Your task to perform on an android device: What's the weather going to be this weekend? Image 0: 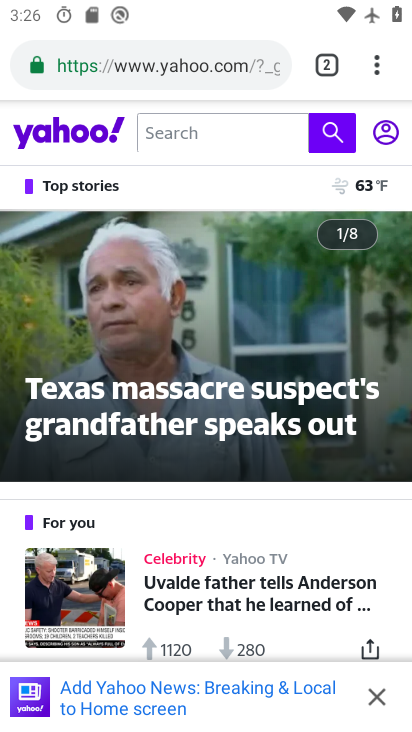
Step 0: press back button
Your task to perform on an android device: What's the weather going to be this weekend? Image 1: 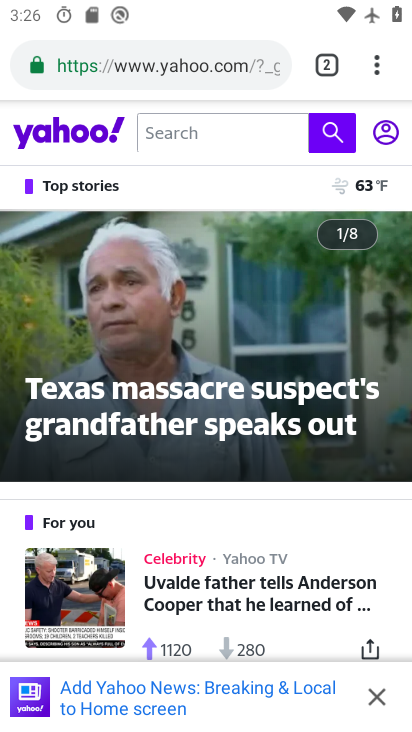
Step 1: press back button
Your task to perform on an android device: What's the weather going to be this weekend? Image 2: 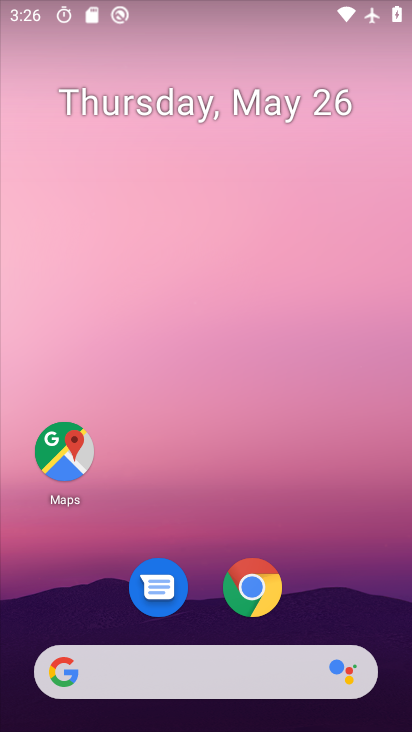
Step 2: drag from (365, 623) to (237, 155)
Your task to perform on an android device: What's the weather going to be this weekend? Image 3: 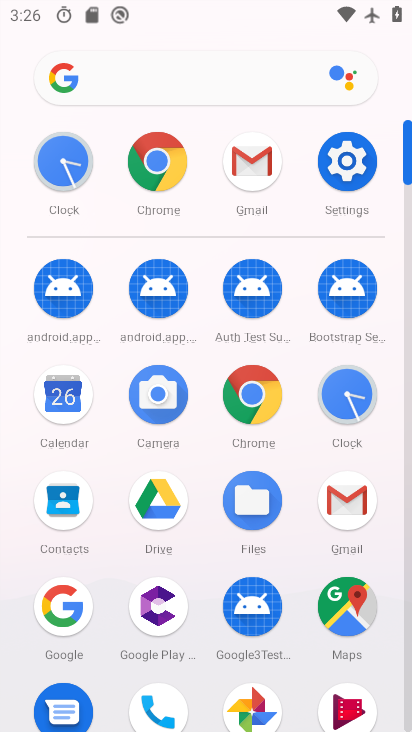
Step 3: press back button
Your task to perform on an android device: What's the weather going to be this weekend? Image 4: 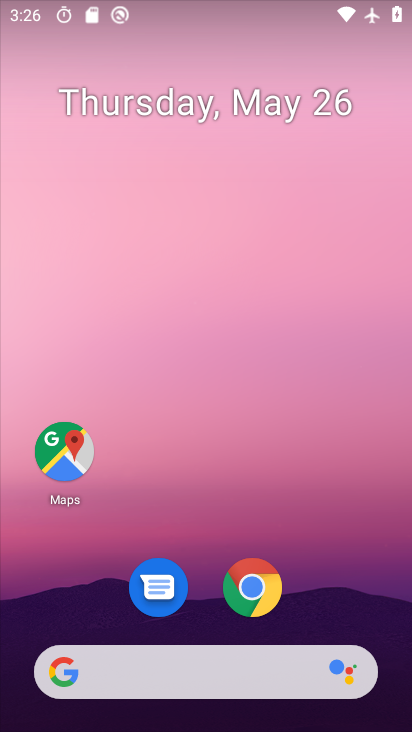
Step 4: drag from (351, 588) to (204, 34)
Your task to perform on an android device: What's the weather going to be this weekend? Image 5: 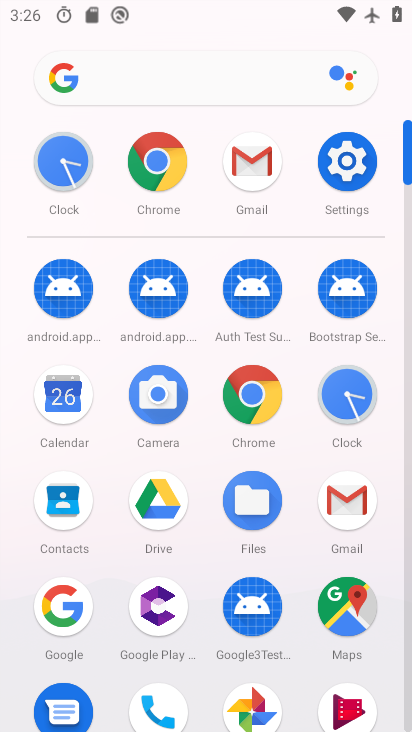
Step 5: press back button
Your task to perform on an android device: What's the weather going to be this weekend? Image 6: 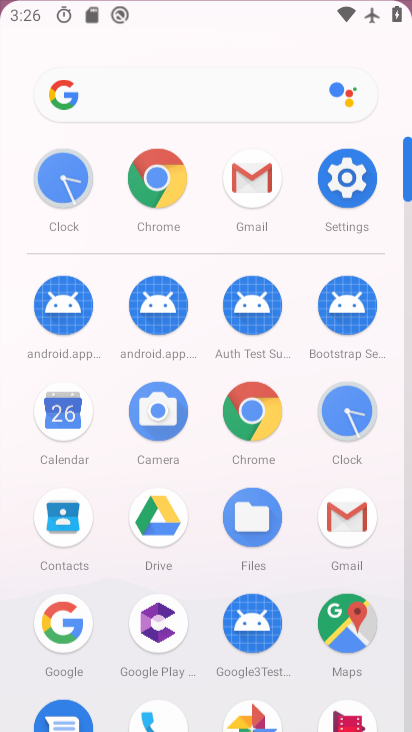
Step 6: press back button
Your task to perform on an android device: What's the weather going to be this weekend? Image 7: 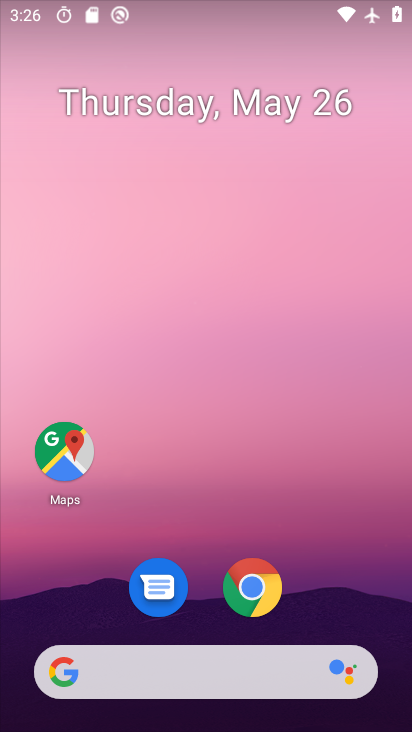
Step 7: press back button
Your task to perform on an android device: What's the weather going to be this weekend? Image 8: 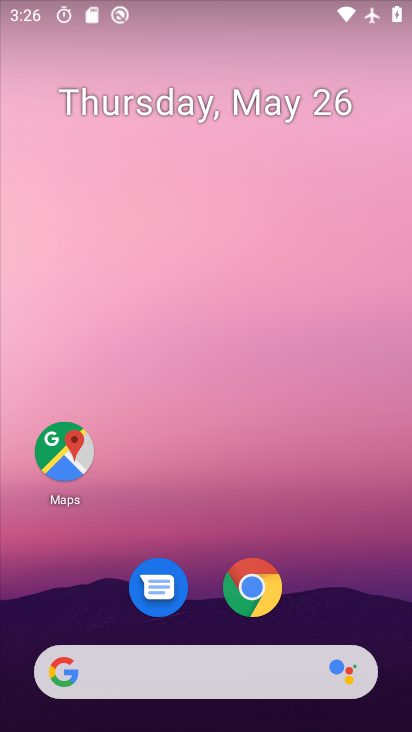
Step 8: drag from (13, 180) to (370, 322)
Your task to perform on an android device: What's the weather going to be this weekend? Image 9: 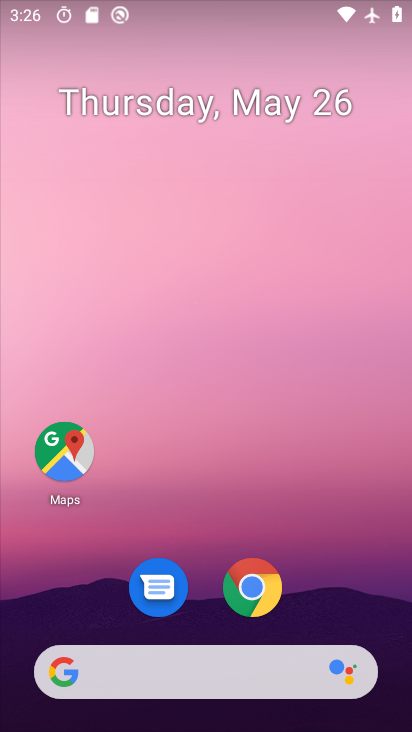
Step 9: drag from (1, 185) to (403, 541)
Your task to perform on an android device: What's the weather going to be this weekend? Image 10: 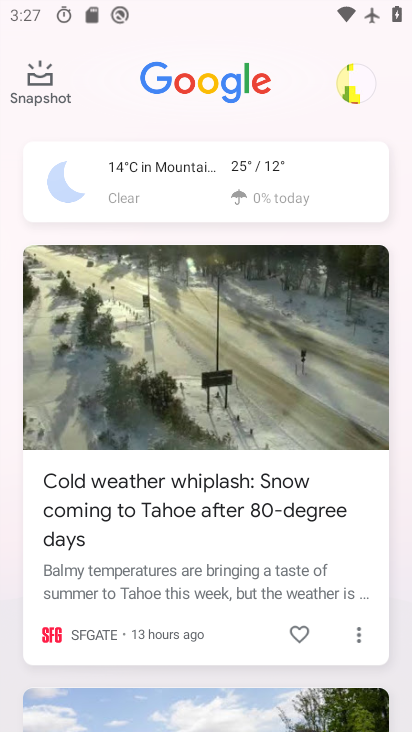
Step 10: click (181, 168)
Your task to perform on an android device: What's the weather going to be this weekend? Image 11: 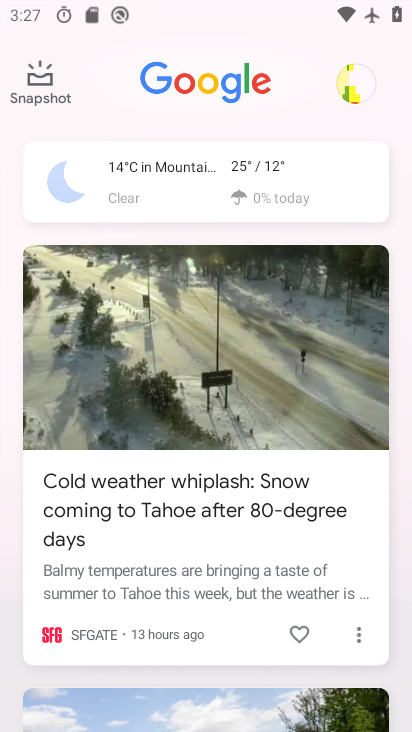
Step 11: click (181, 168)
Your task to perform on an android device: What's the weather going to be this weekend? Image 12: 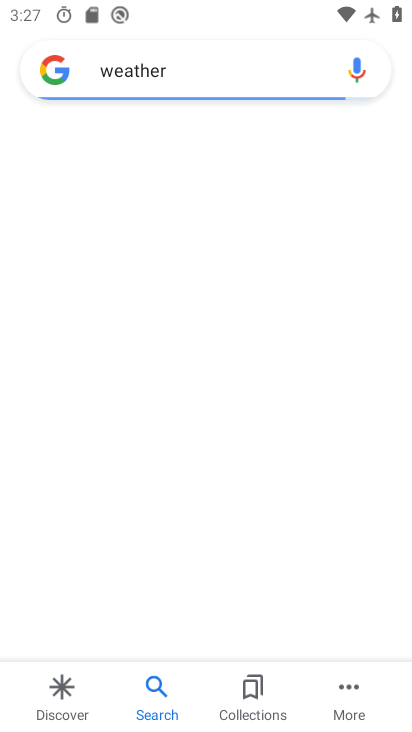
Step 12: click (184, 165)
Your task to perform on an android device: What's the weather going to be this weekend? Image 13: 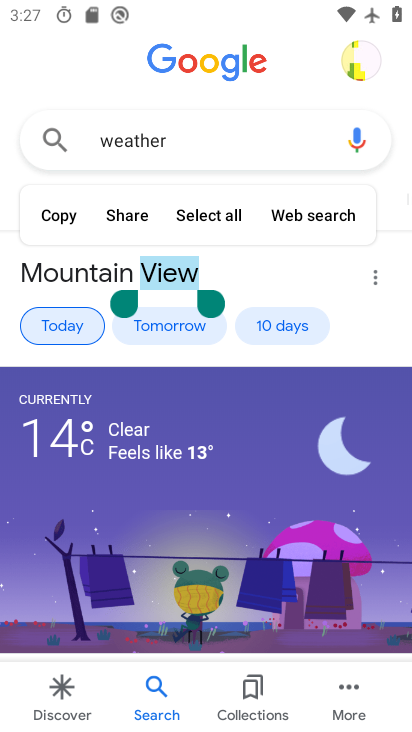
Step 13: click (193, 279)
Your task to perform on an android device: What's the weather going to be this weekend? Image 14: 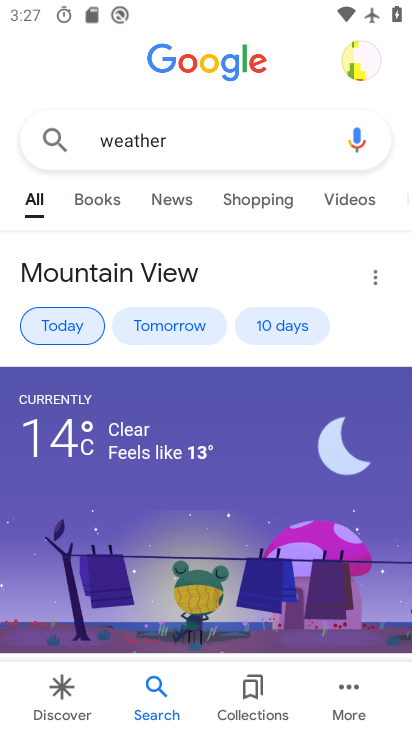
Step 14: task complete